Your task to perform on an android device: turn off sleep mode Image 0: 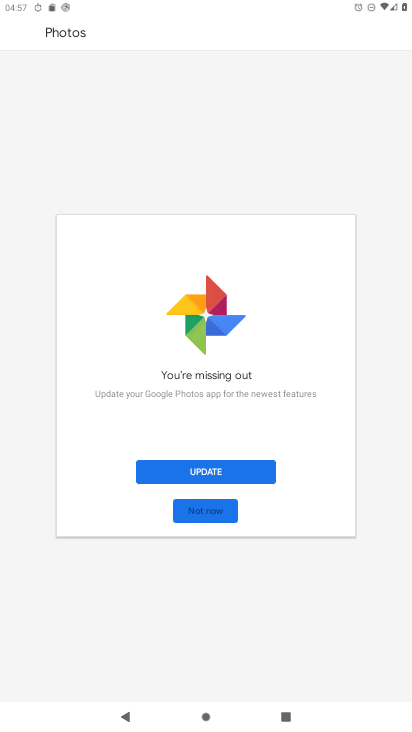
Step 0: press home button
Your task to perform on an android device: turn off sleep mode Image 1: 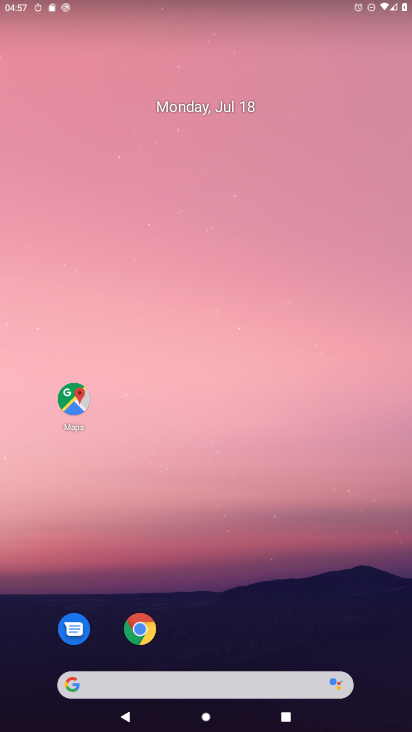
Step 1: drag from (241, 677) to (209, 44)
Your task to perform on an android device: turn off sleep mode Image 2: 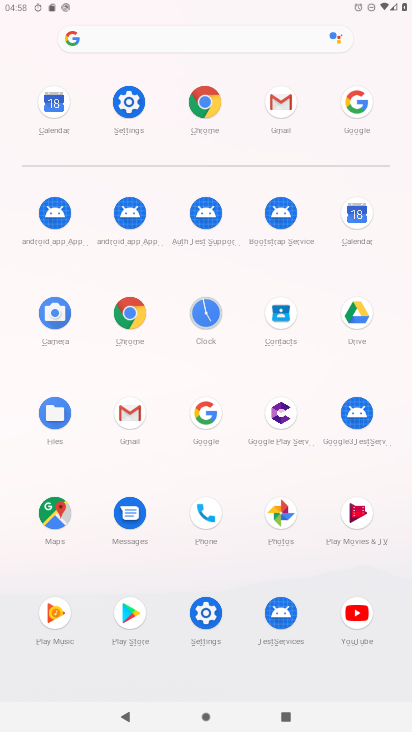
Step 2: click (130, 100)
Your task to perform on an android device: turn off sleep mode Image 3: 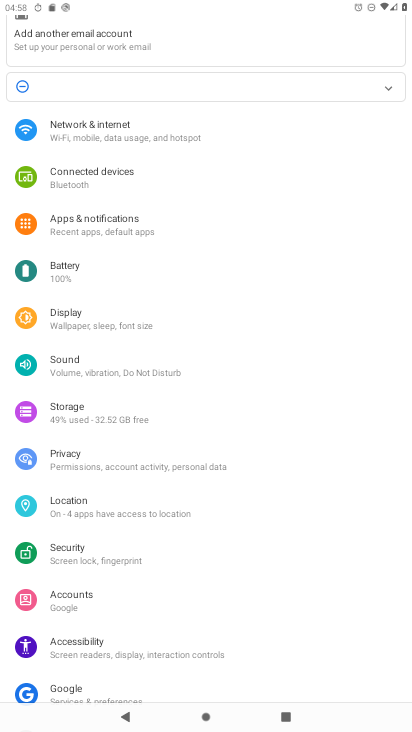
Step 3: click (55, 318)
Your task to perform on an android device: turn off sleep mode Image 4: 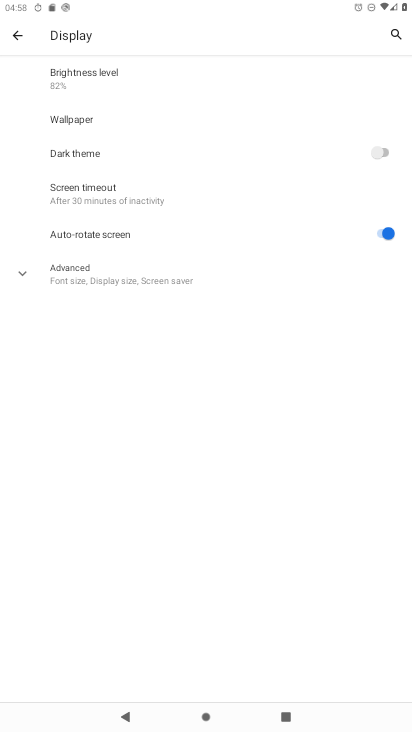
Step 4: click (24, 273)
Your task to perform on an android device: turn off sleep mode Image 5: 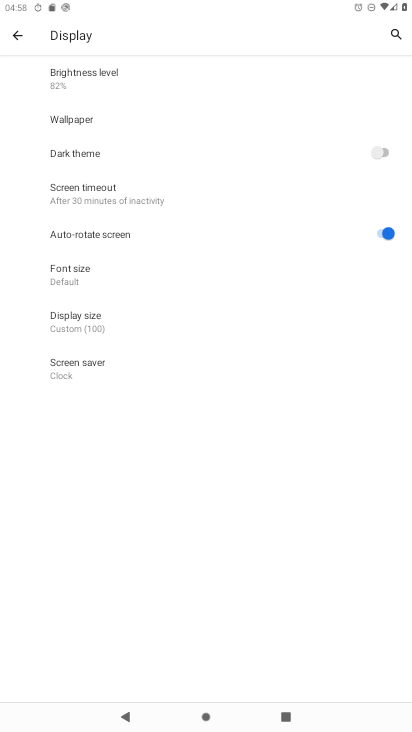
Step 5: press back button
Your task to perform on an android device: turn off sleep mode Image 6: 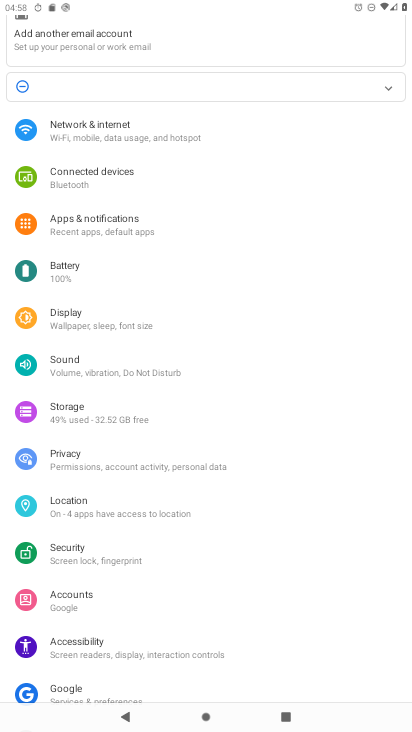
Step 6: click (72, 367)
Your task to perform on an android device: turn off sleep mode Image 7: 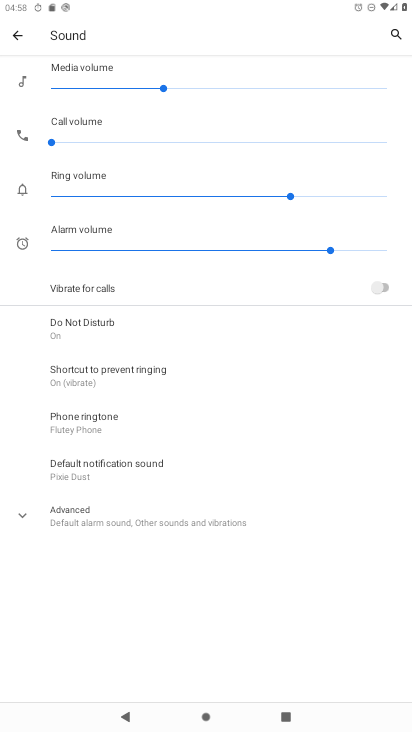
Step 7: task complete